Your task to perform on an android device: Open calendar and show me the fourth week of next month Image 0: 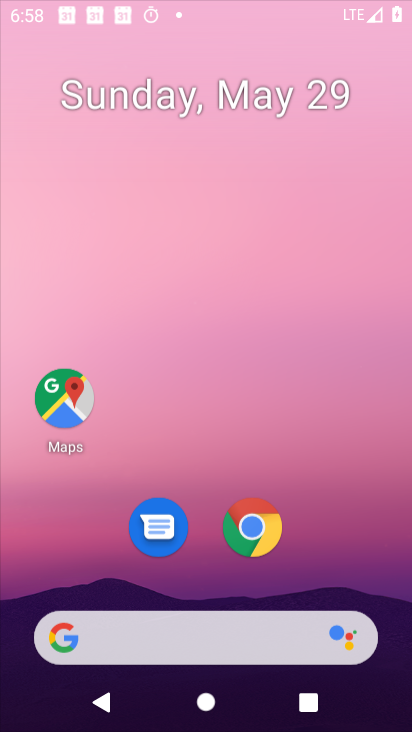
Step 0: click (261, 90)
Your task to perform on an android device: Open calendar and show me the fourth week of next month Image 1: 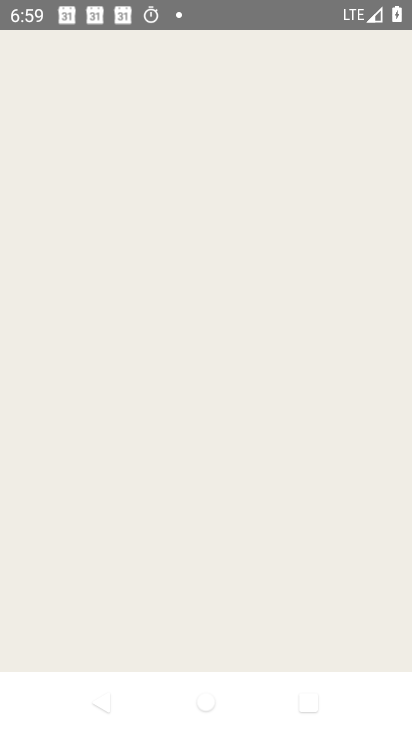
Step 1: press home button
Your task to perform on an android device: Open calendar and show me the fourth week of next month Image 2: 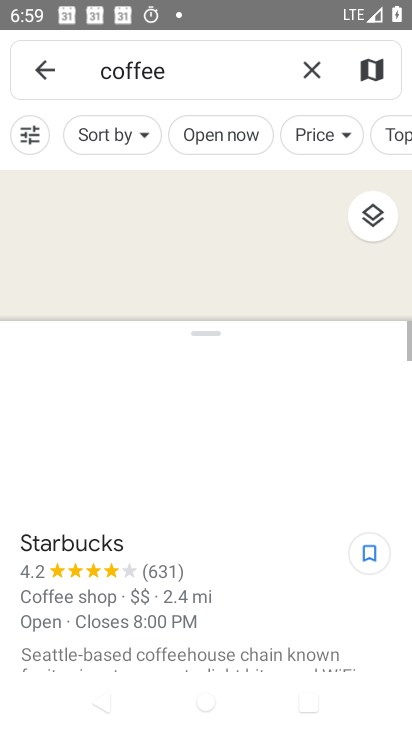
Step 2: drag from (296, 618) to (236, 63)
Your task to perform on an android device: Open calendar and show me the fourth week of next month Image 3: 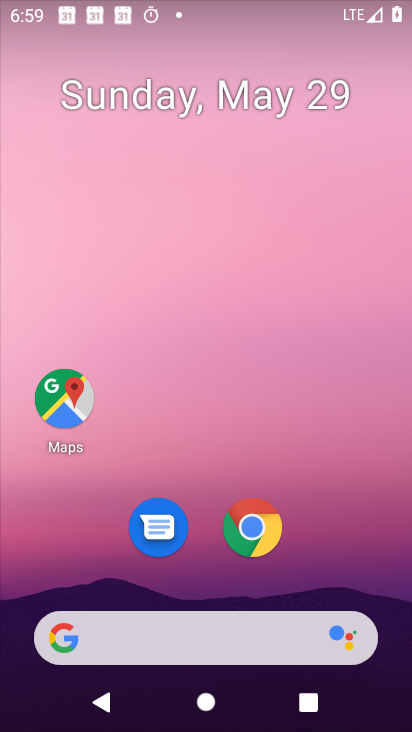
Step 3: drag from (302, 505) to (272, 3)
Your task to perform on an android device: Open calendar and show me the fourth week of next month Image 4: 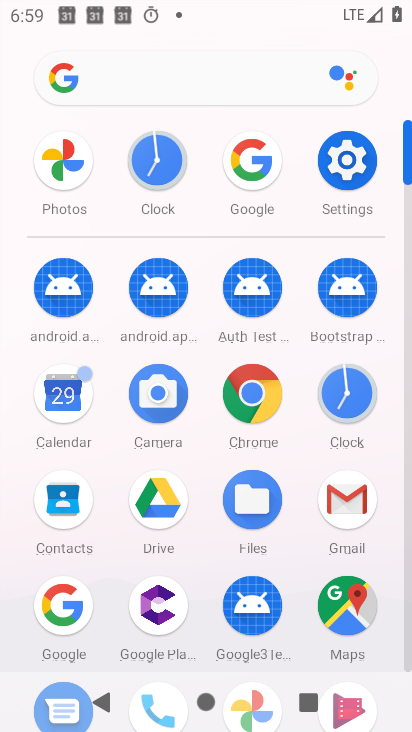
Step 4: click (94, 459)
Your task to perform on an android device: Open calendar and show me the fourth week of next month Image 5: 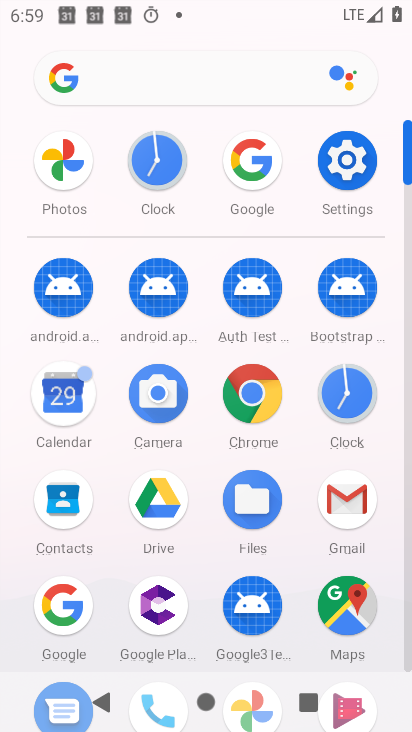
Step 5: click (75, 421)
Your task to perform on an android device: Open calendar and show me the fourth week of next month Image 6: 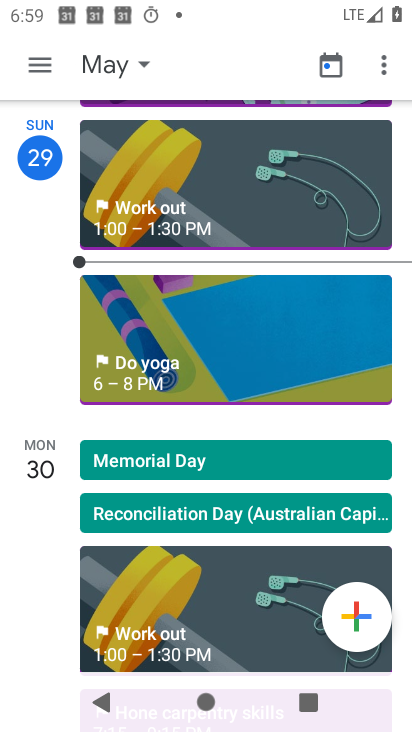
Step 6: click (123, 48)
Your task to perform on an android device: Open calendar and show me the fourth week of next month Image 7: 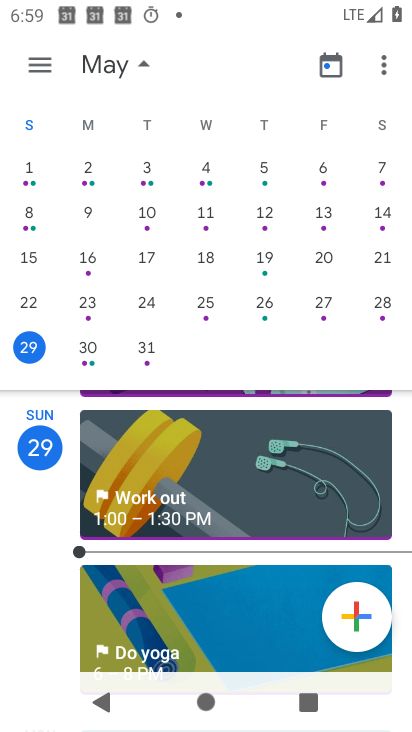
Step 7: drag from (380, 256) to (38, 222)
Your task to perform on an android device: Open calendar and show me the fourth week of next month Image 8: 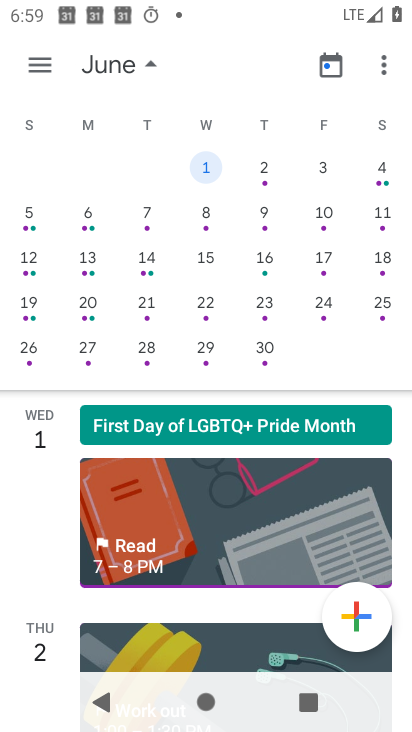
Step 8: click (203, 349)
Your task to perform on an android device: Open calendar and show me the fourth week of next month Image 9: 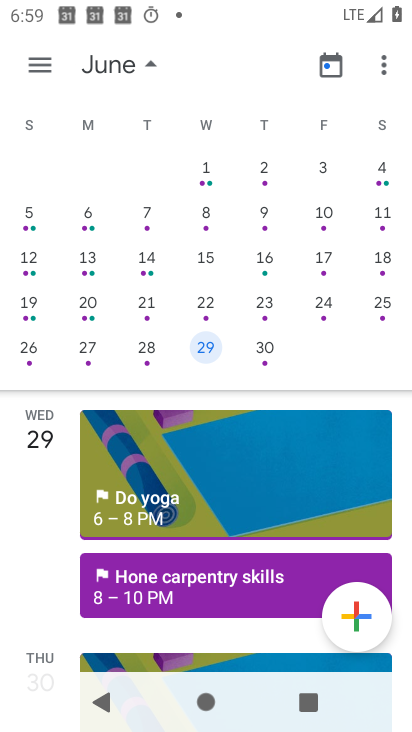
Step 9: task complete